Your task to perform on an android device: open app "Google Maps" (install if not already installed) Image 0: 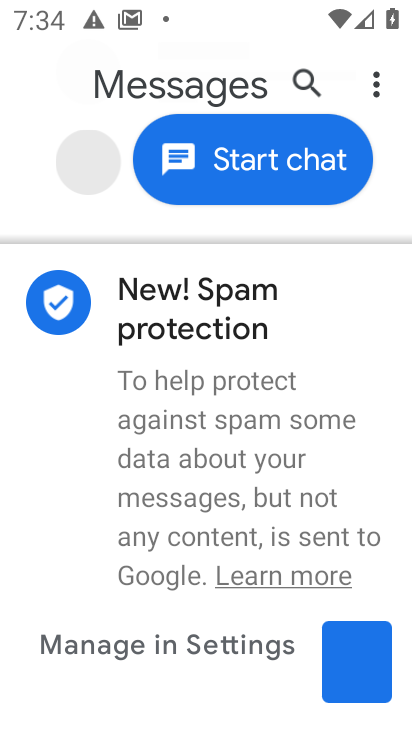
Step 0: press home button
Your task to perform on an android device: open app "Google Maps" (install if not already installed) Image 1: 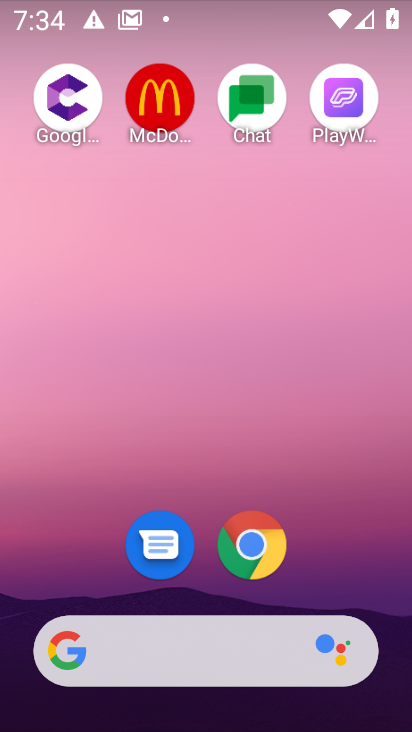
Step 1: drag from (344, 580) to (347, 111)
Your task to perform on an android device: open app "Google Maps" (install if not already installed) Image 2: 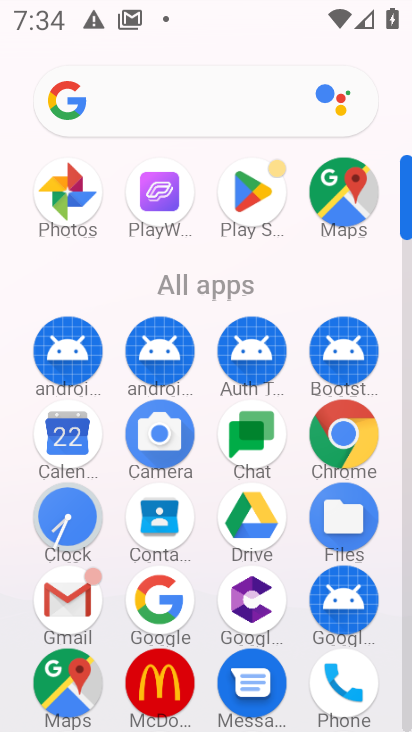
Step 2: click (256, 192)
Your task to perform on an android device: open app "Google Maps" (install if not already installed) Image 3: 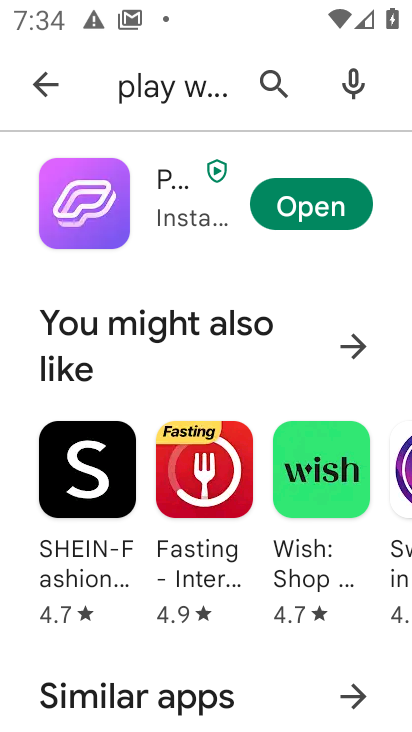
Step 3: press back button
Your task to perform on an android device: open app "Google Maps" (install if not already installed) Image 4: 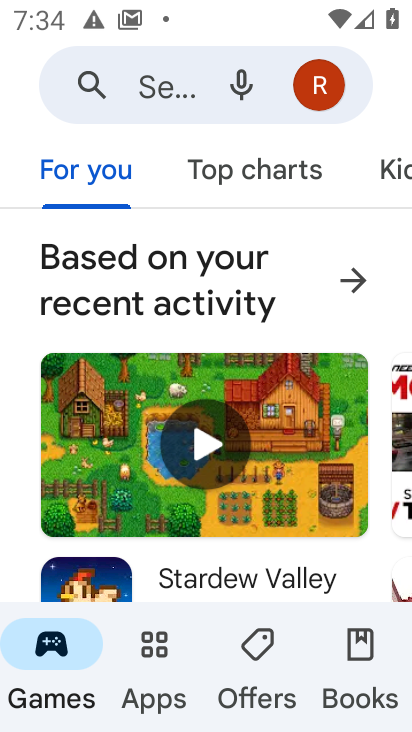
Step 4: click (134, 90)
Your task to perform on an android device: open app "Google Maps" (install if not already installed) Image 5: 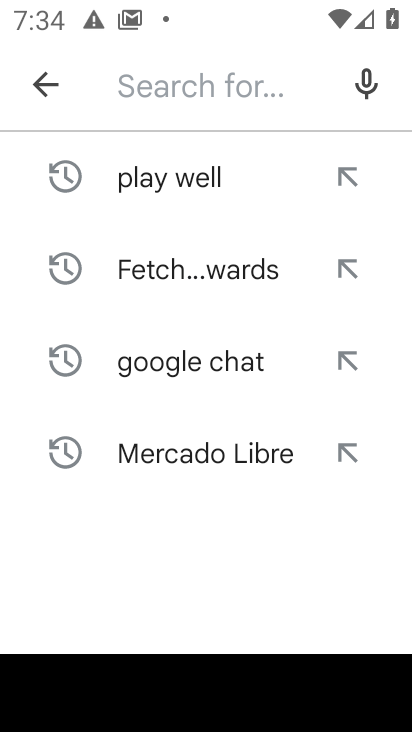
Step 5: type "google maps"
Your task to perform on an android device: open app "Google Maps" (install if not already installed) Image 6: 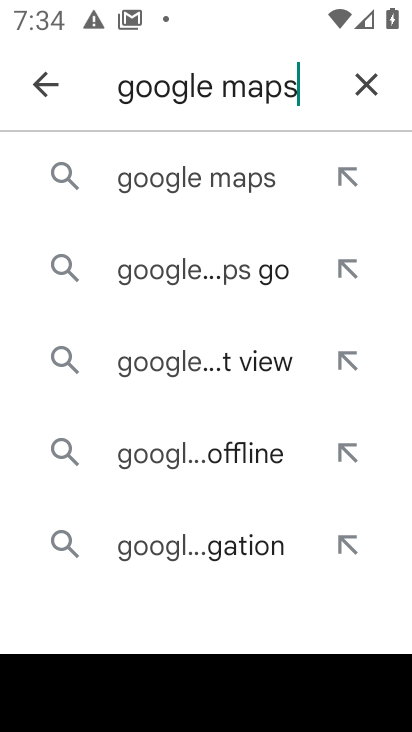
Step 6: click (227, 174)
Your task to perform on an android device: open app "Google Maps" (install if not already installed) Image 7: 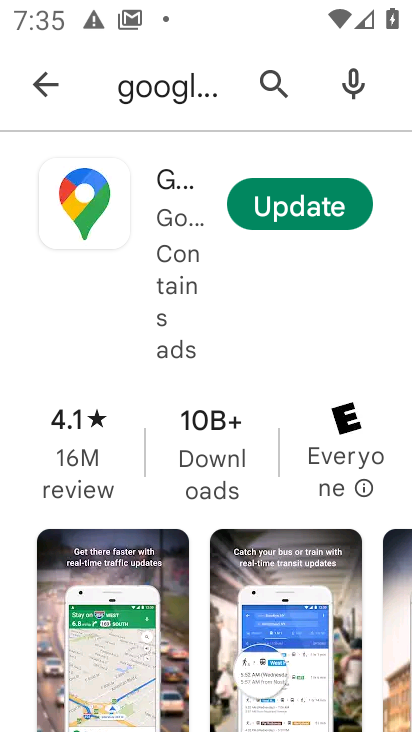
Step 7: click (297, 207)
Your task to perform on an android device: open app "Google Maps" (install if not already installed) Image 8: 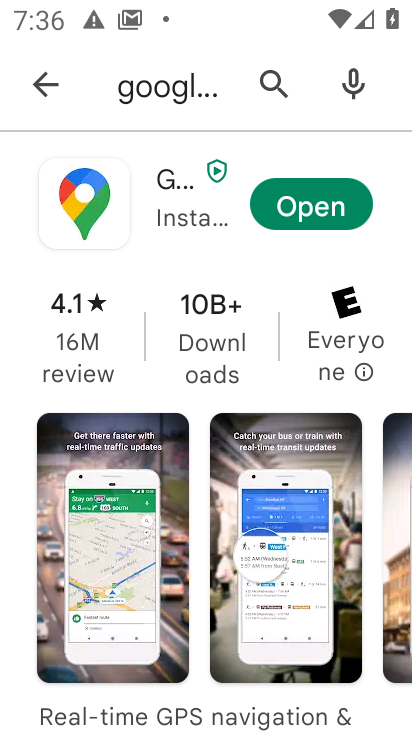
Step 8: click (326, 193)
Your task to perform on an android device: open app "Google Maps" (install if not already installed) Image 9: 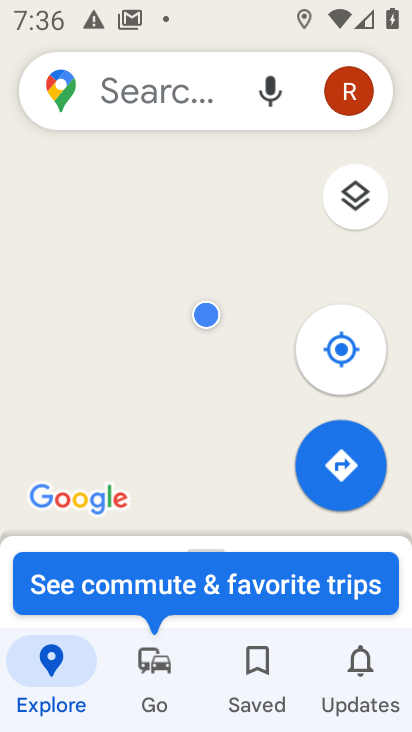
Step 9: task complete